Your task to perform on an android device: open app "NewsBreak: Local News & Alerts" Image 0: 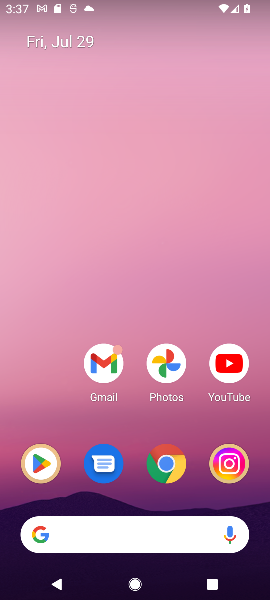
Step 0: drag from (98, 516) to (155, 102)
Your task to perform on an android device: open app "NewsBreak: Local News & Alerts" Image 1: 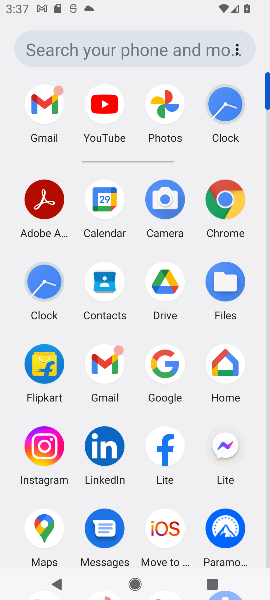
Step 1: drag from (140, 387) to (159, 206)
Your task to perform on an android device: open app "NewsBreak: Local News & Alerts" Image 2: 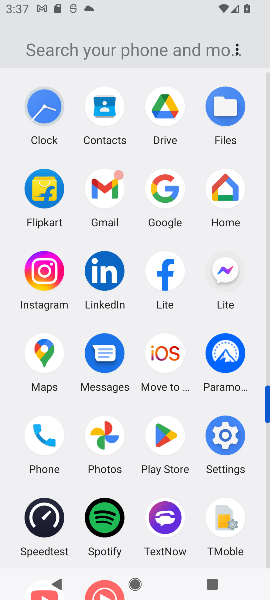
Step 2: click (166, 436)
Your task to perform on an android device: open app "NewsBreak: Local News & Alerts" Image 3: 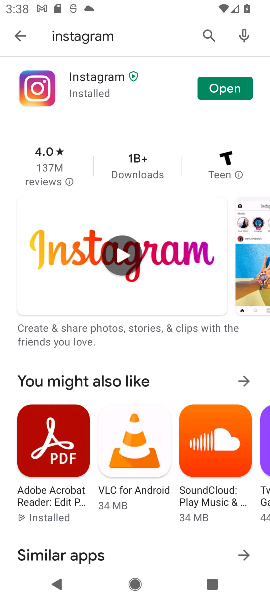
Step 3: click (206, 36)
Your task to perform on an android device: open app "NewsBreak: Local News & Alerts" Image 4: 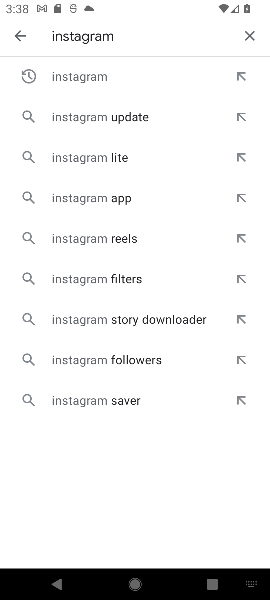
Step 4: click (250, 32)
Your task to perform on an android device: open app "NewsBreak: Local News & Alerts" Image 5: 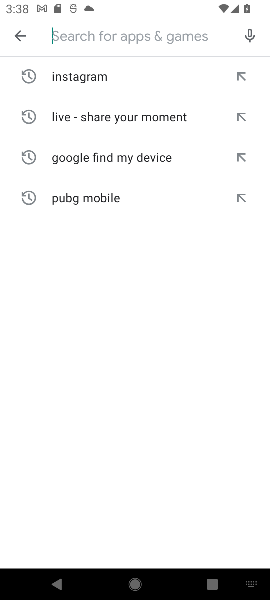
Step 5: type "NewsBreak: Local News & Alerts"
Your task to perform on an android device: open app "NewsBreak: Local News & Alerts" Image 6: 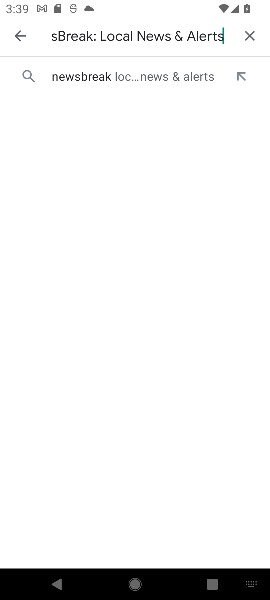
Step 6: click (173, 76)
Your task to perform on an android device: open app "NewsBreak: Local News & Alerts" Image 7: 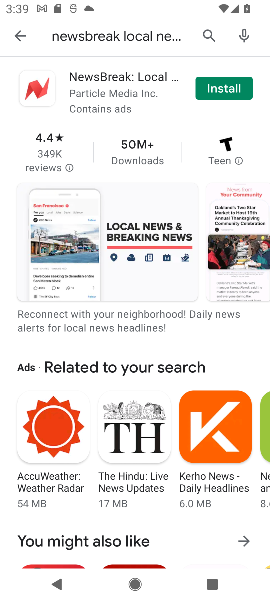
Step 7: task complete